Your task to perform on an android device: turn off notifications in google photos Image 0: 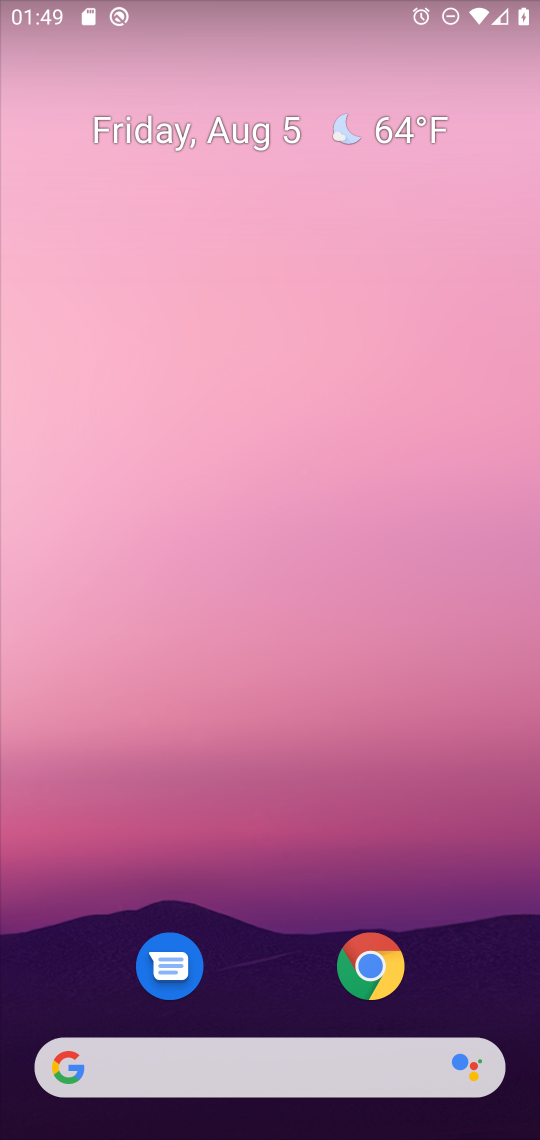
Step 0: drag from (275, 911) to (346, 0)
Your task to perform on an android device: turn off notifications in google photos Image 1: 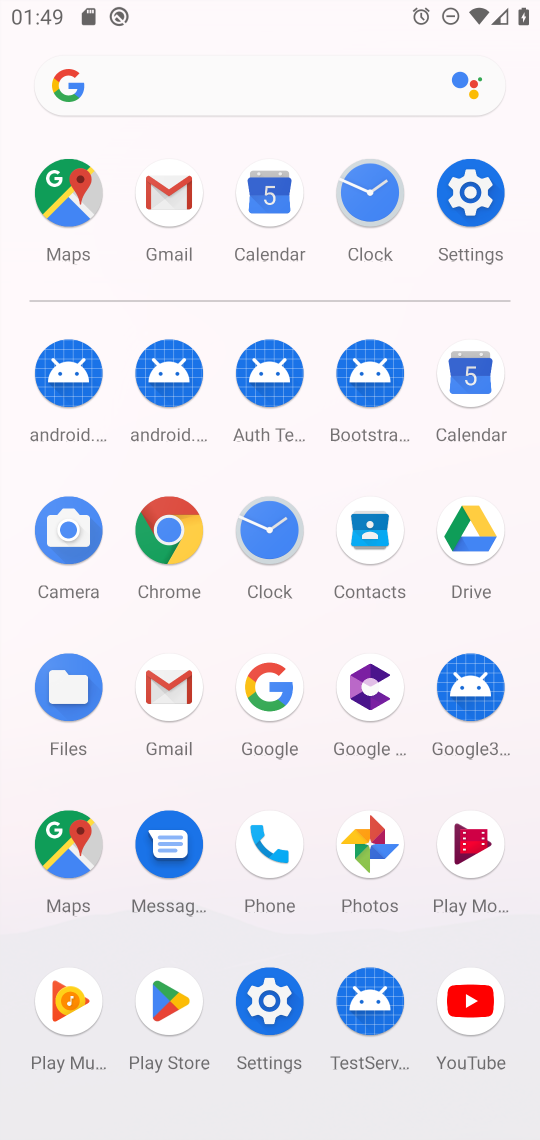
Step 1: click (360, 830)
Your task to perform on an android device: turn off notifications in google photos Image 2: 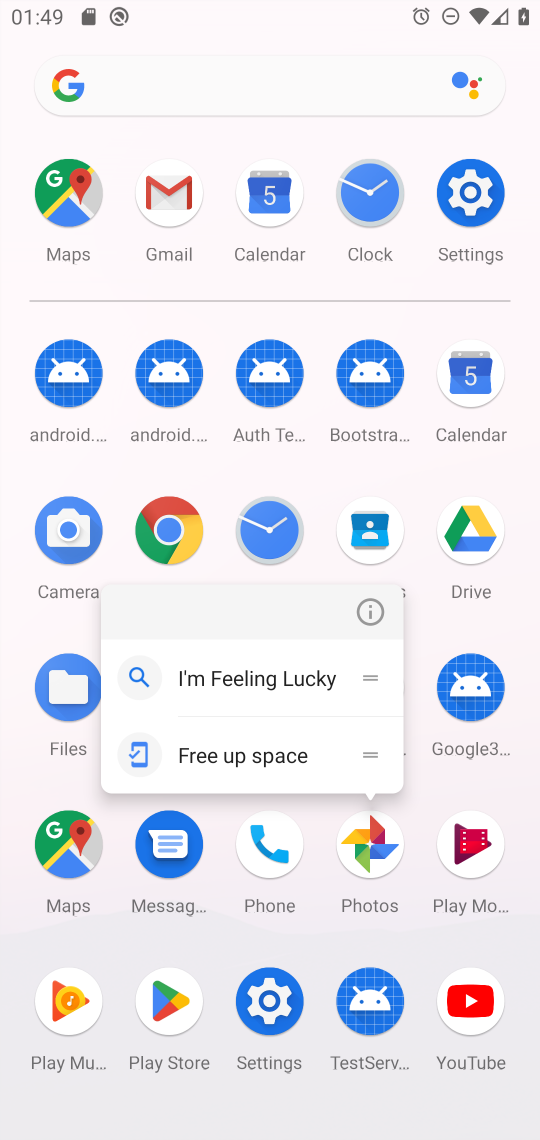
Step 2: click (367, 851)
Your task to perform on an android device: turn off notifications in google photos Image 3: 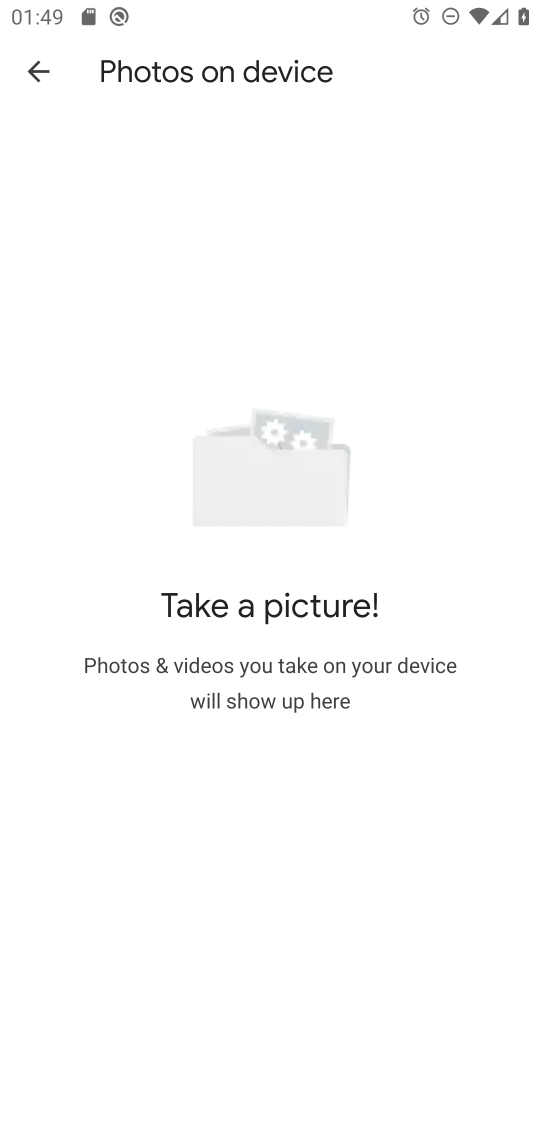
Step 3: click (43, 65)
Your task to perform on an android device: turn off notifications in google photos Image 4: 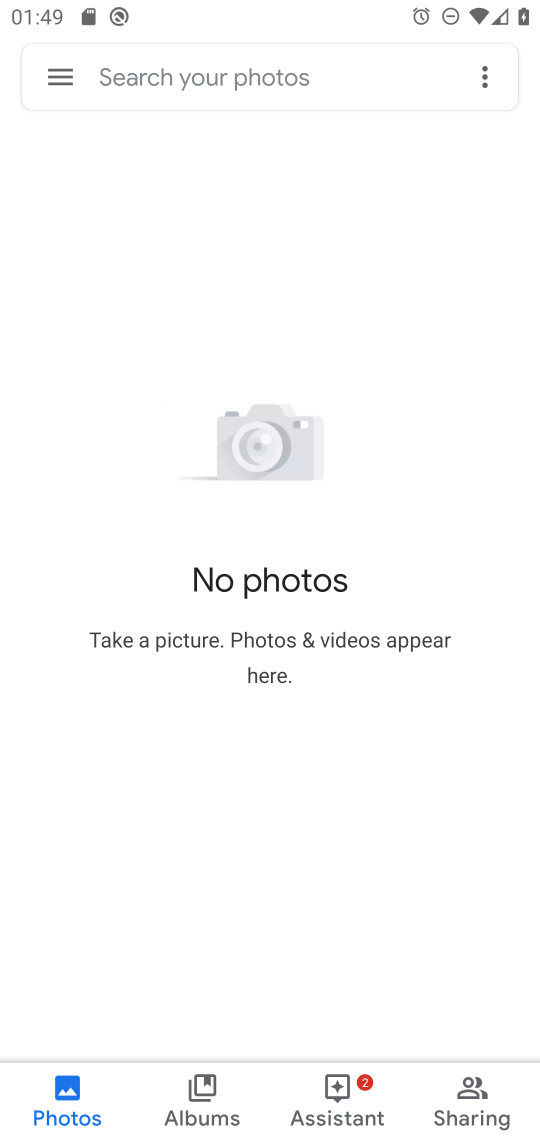
Step 4: click (58, 72)
Your task to perform on an android device: turn off notifications in google photos Image 5: 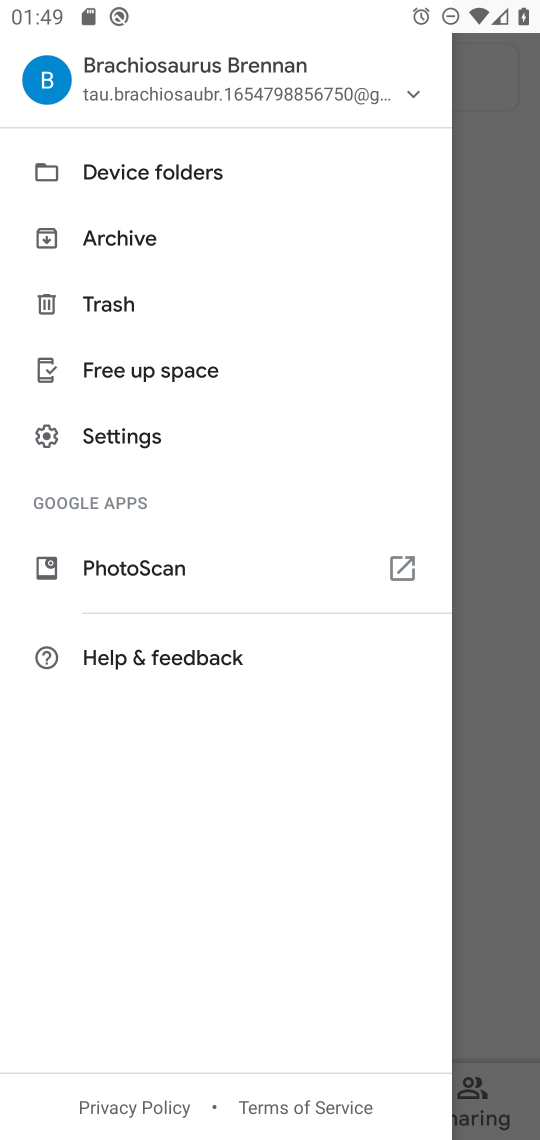
Step 5: click (114, 421)
Your task to perform on an android device: turn off notifications in google photos Image 6: 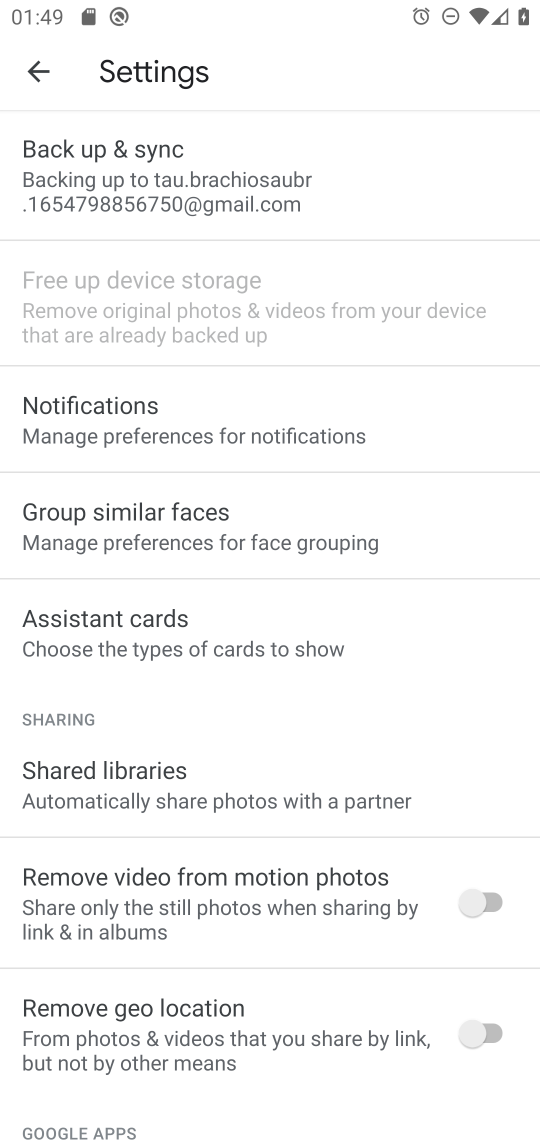
Step 6: click (114, 421)
Your task to perform on an android device: turn off notifications in google photos Image 7: 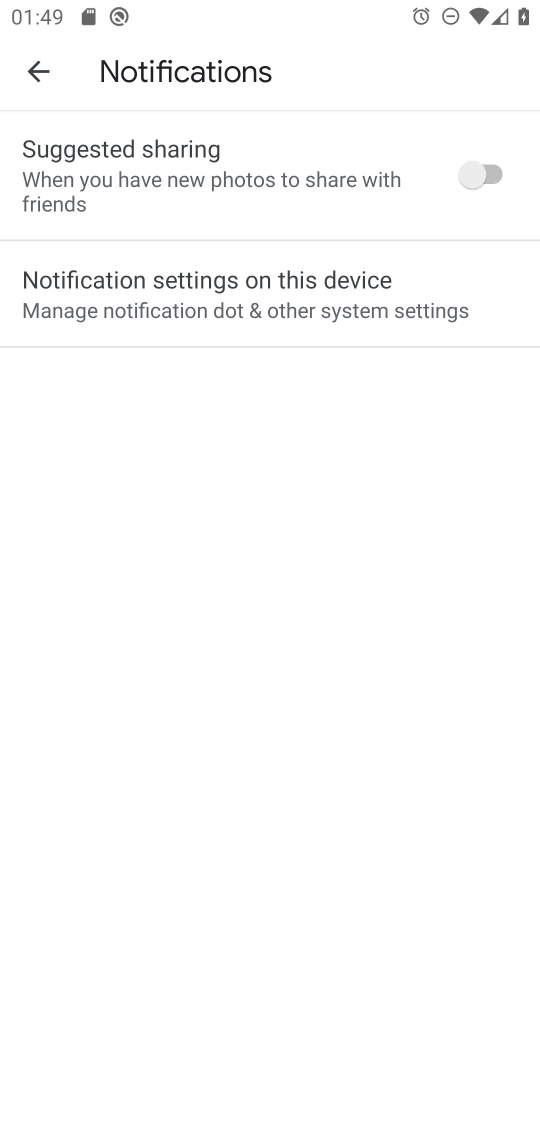
Step 7: click (184, 303)
Your task to perform on an android device: turn off notifications in google photos Image 8: 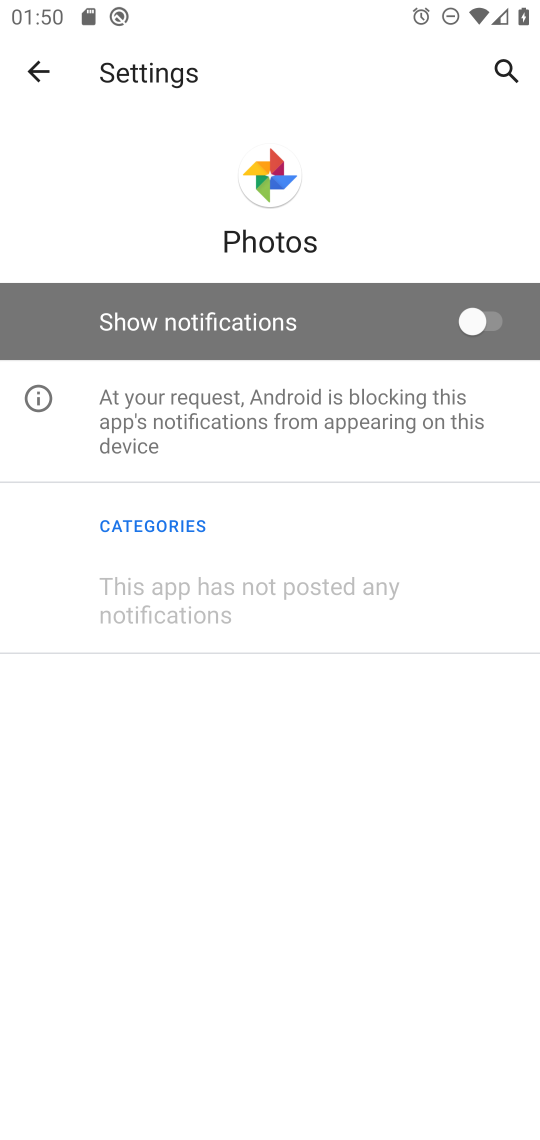
Step 8: task complete